Your task to perform on an android device: See recent photos Image 0: 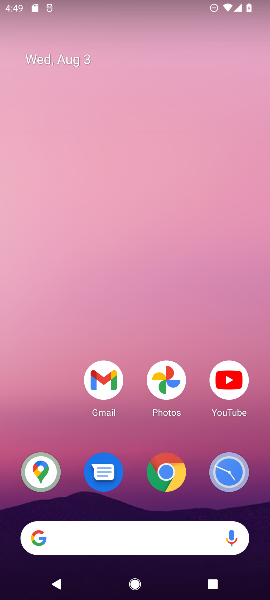
Step 0: drag from (251, 508) to (89, 17)
Your task to perform on an android device: See recent photos Image 1: 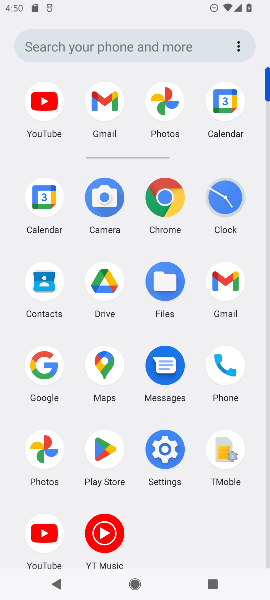
Step 1: click (40, 449)
Your task to perform on an android device: See recent photos Image 2: 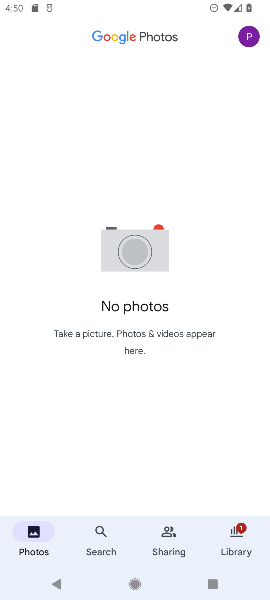
Step 2: task complete